Your task to perform on an android device: Show me recent news Image 0: 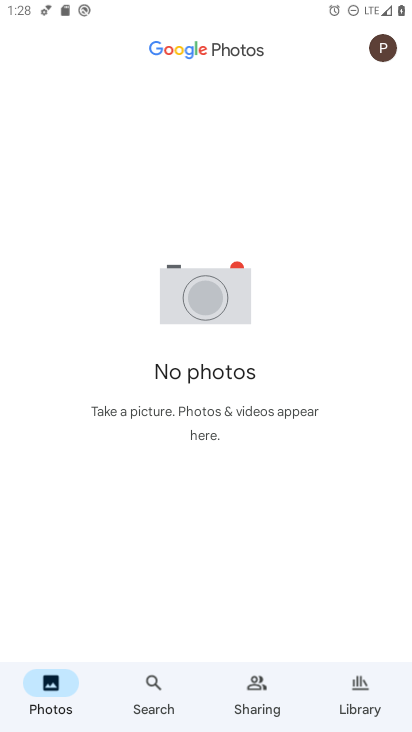
Step 0: press home button
Your task to perform on an android device: Show me recent news Image 1: 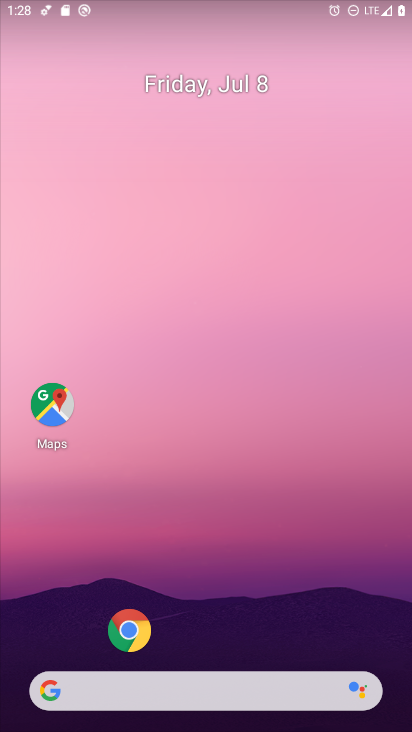
Step 1: drag from (236, 695) to (334, 191)
Your task to perform on an android device: Show me recent news Image 2: 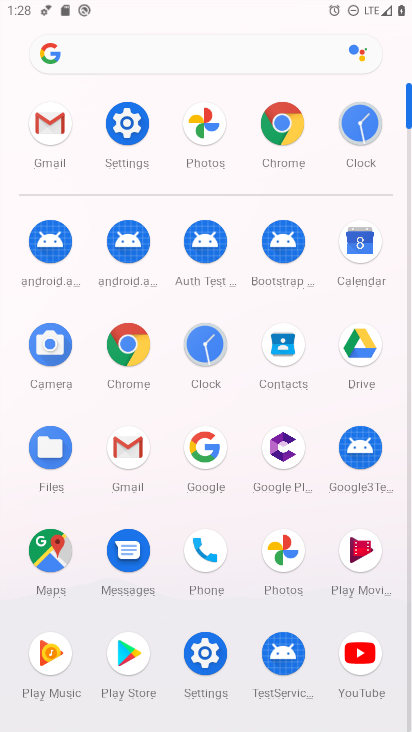
Step 2: click (141, 356)
Your task to perform on an android device: Show me recent news Image 3: 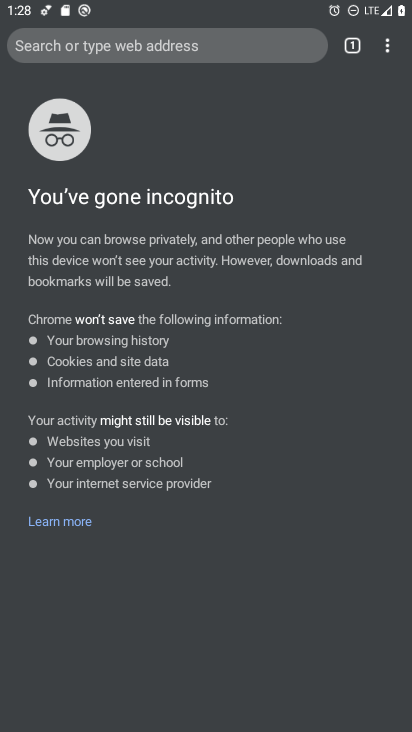
Step 3: click (233, 46)
Your task to perform on an android device: Show me recent news Image 4: 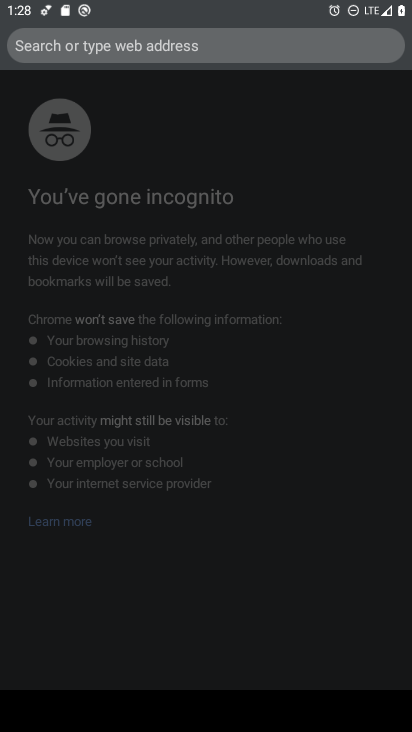
Step 4: type "recent news"
Your task to perform on an android device: Show me recent news Image 5: 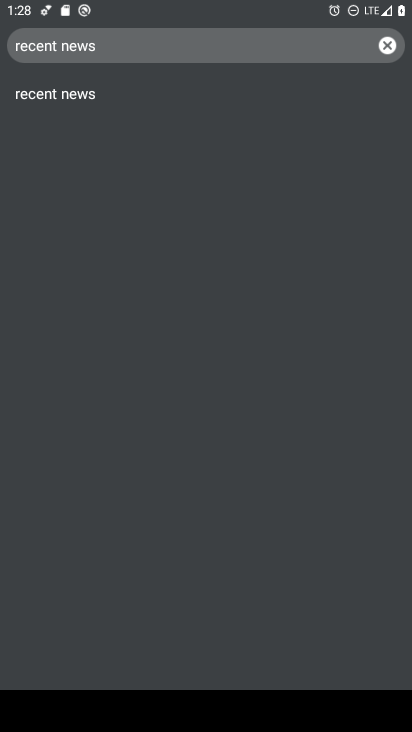
Step 5: click (56, 90)
Your task to perform on an android device: Show me recent news Image 6: 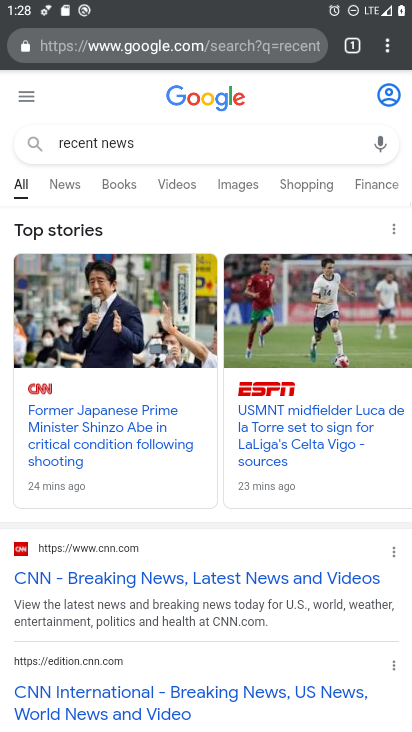
Step 6: task complete